Your task to perform on an android device: Open calendar and show me the second week of next month Image 0: 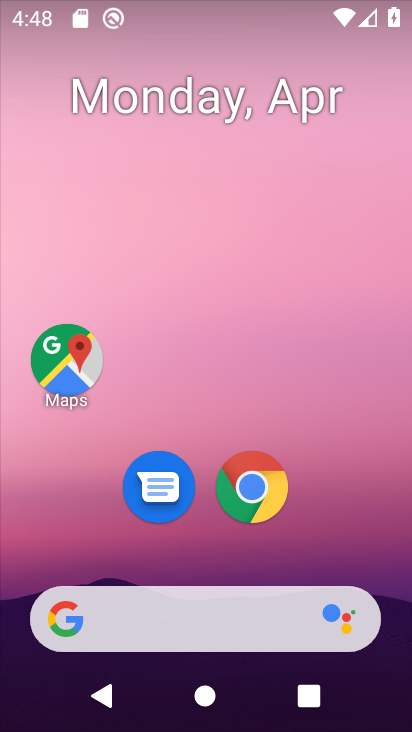
Step 0: drag from (385, 533) to (250, 62)
Your task to perform on an android device: Open calendar and show me the second week of next month Image 1: 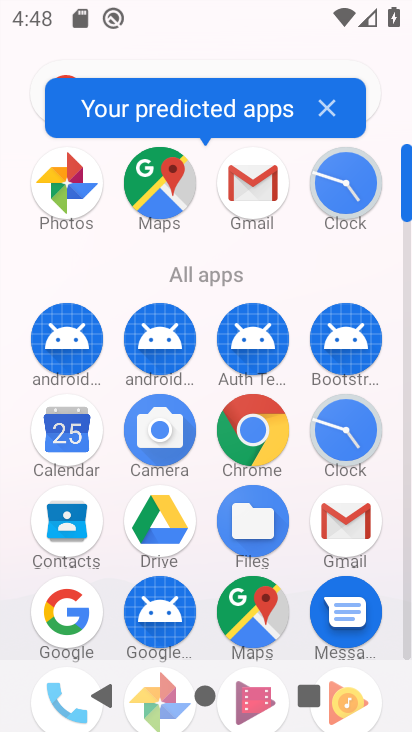
Step 1: click (78, 448)
Your task to perform on an android device: Open calendar and show me the second week of next month Image 2: 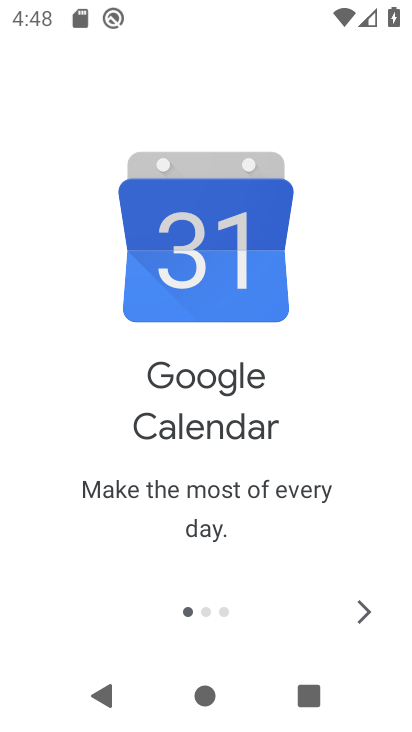
Step 2: click (364, 615)
Your task to perform on an android device: Open calendar and show me the second week of next month Image 3: 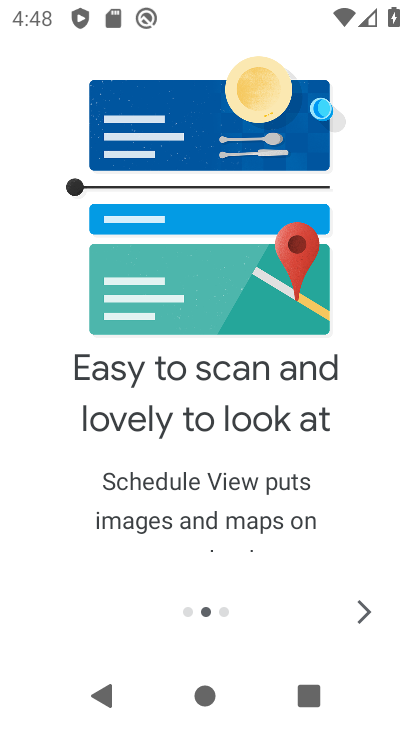
Step 3: click (364, 615)
Your task to perform on an android device: Open calendar and show me the second week of next month Image 4: 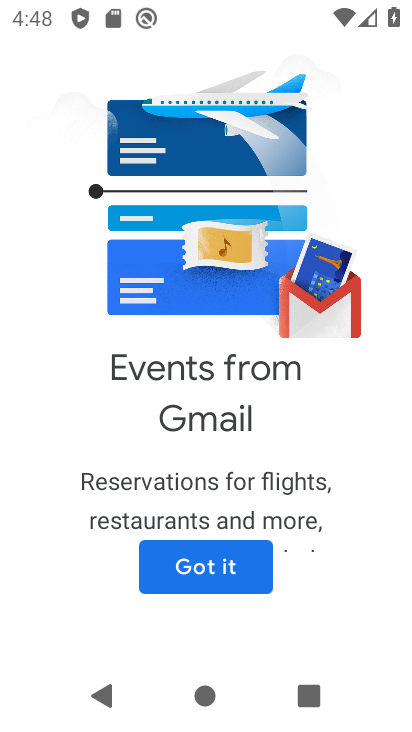
Step 4: click (262, 561)
Your task to perform on an android device: Open calendar and show me the second week of next month Image 5: 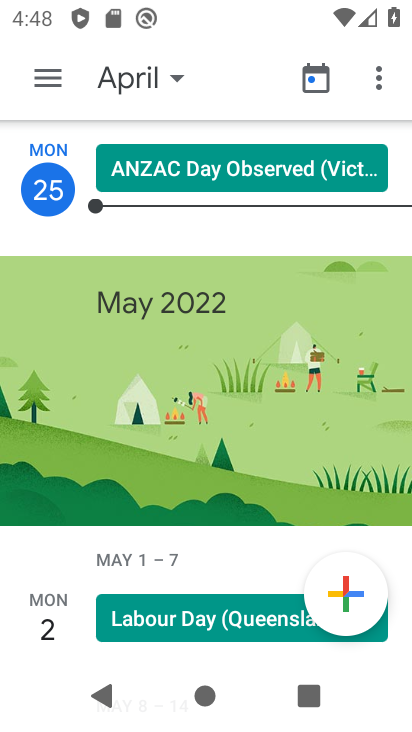
Step 5: click (57, 78)
Your task to perform on an android device: Open calendar and show me the second week of next month Image 6: 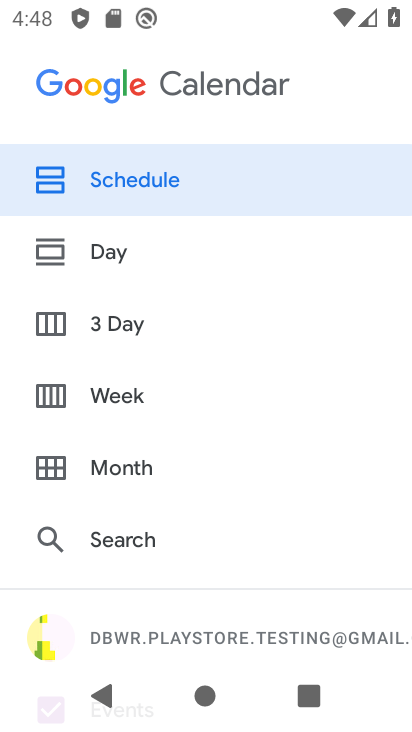
Step 6: click (124, 404)
Your task to perform on an android device: Open calendar and show me the second week of next month Image 7: 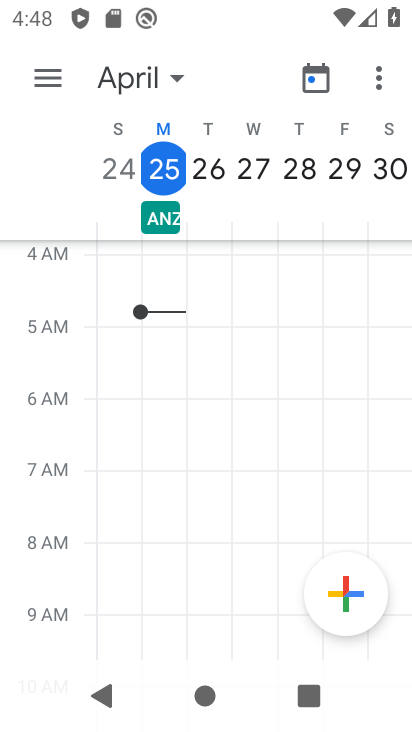
Step 7: click (157, 81)
Your task to perform on an android device: Open calendar and show me the second week of next month Image 8: 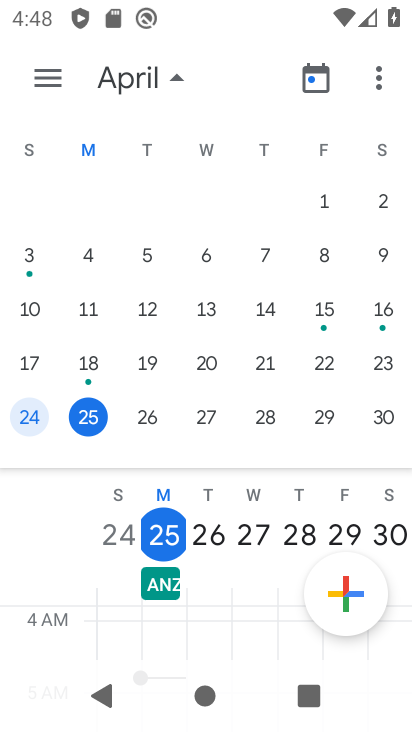
Step 8: drag from (398, 342) to (18, 334)
Your task to perform on an android device: Open calendar and show me the second week of next month Image 9: 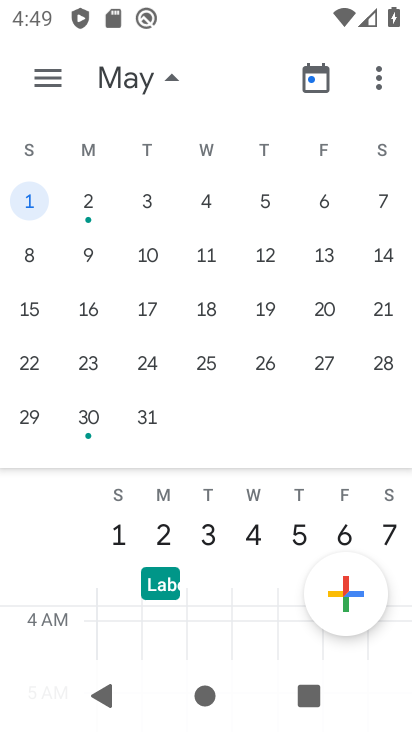
Step 9: click (152, 264)
Your task to perform on an android device: Open calendar and show me the second week of next month Image 10: 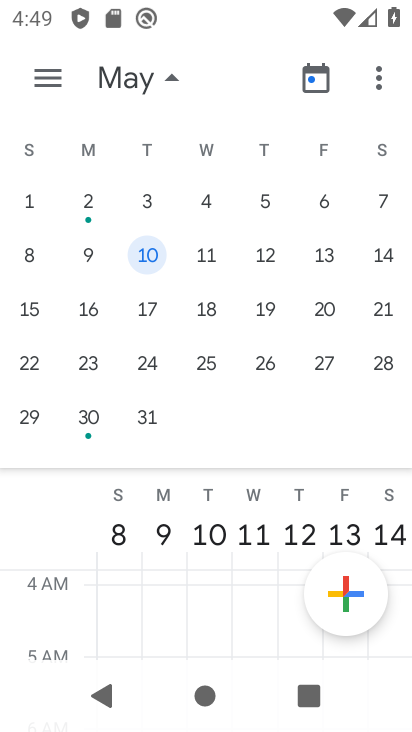
Step 10: click (176, 69)
Your task to perform on an android device: Open calendar and show me the second week of next month Image 11: 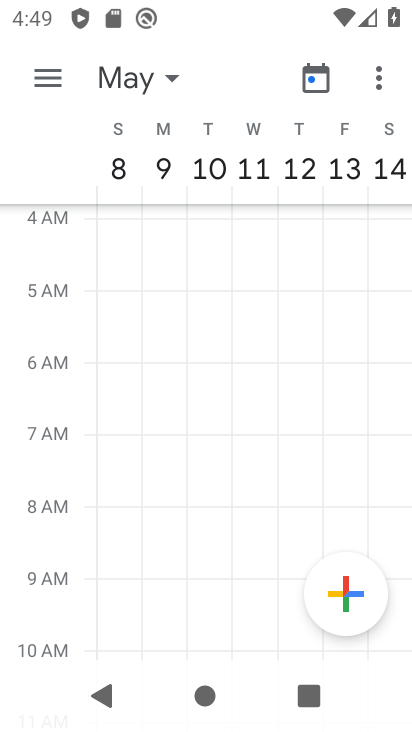
Step 11: task complete